Your task to perform on an android device: Open Google Chrome and open the bookmarks view Image 0: 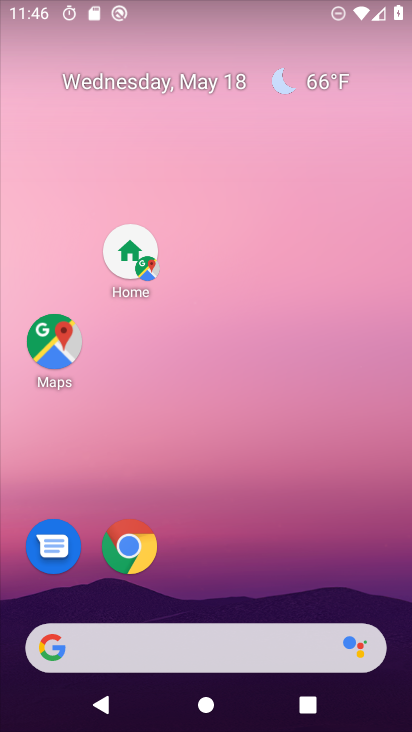
Step 0: click (128, 548)
Your task to perform on an android device: Open Google Chrome and open the bookmarks view Image 1: 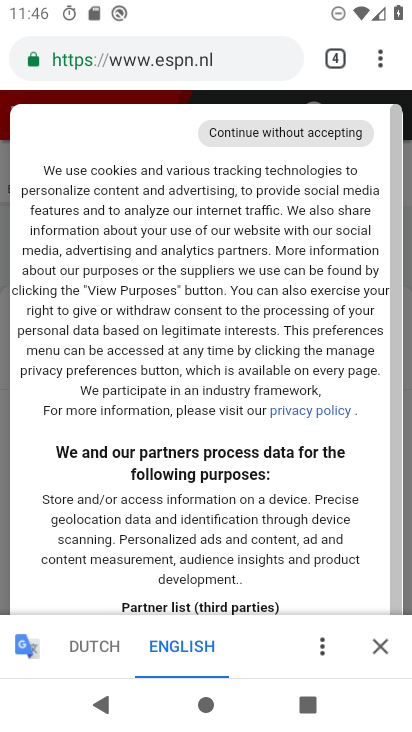
Step 1: click (384, 45)
Your task to perform on an android device: Open Google Chrome and open the bookmarks view Image 2: 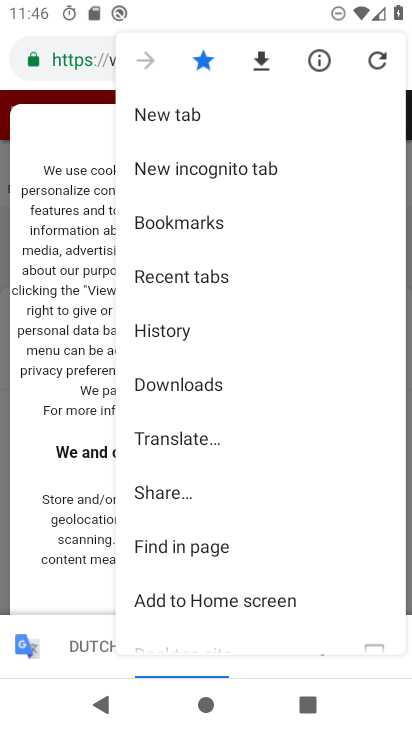
Step 2: click (214, 221)
Your task to perform on an android device: Open Google Chrome and open the bookmarks view Image 3: 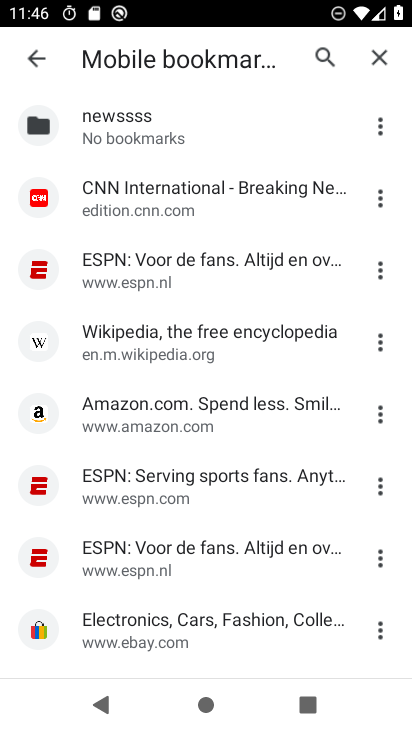
Step 3: task complete